Your task to perform on an android device: show emergency info Image 0: 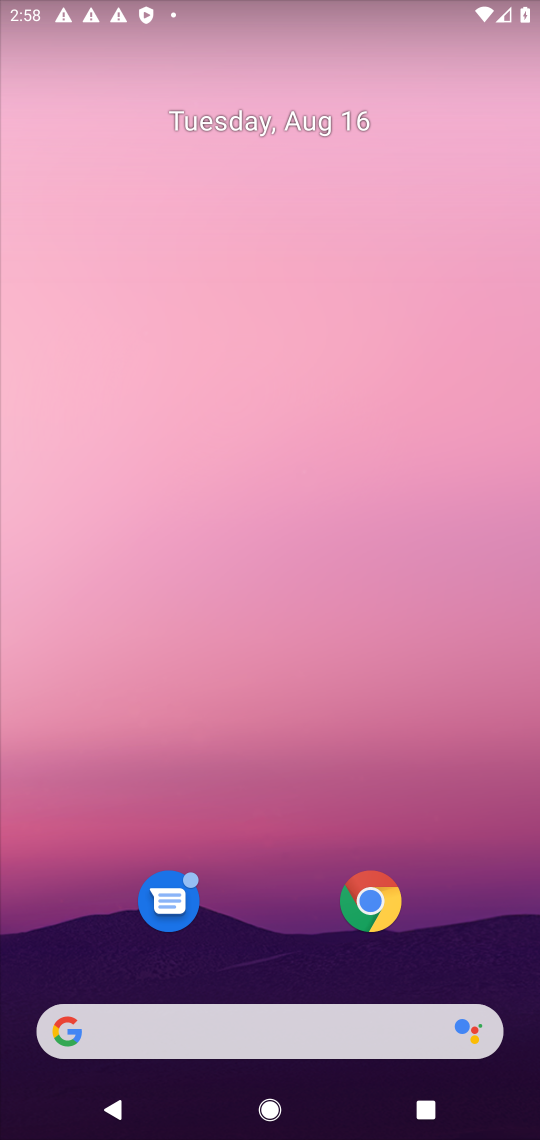
Step 0: drag from (239, 760) to (239, 44)
Your task to perform on an android device: show emergency info Image 1: 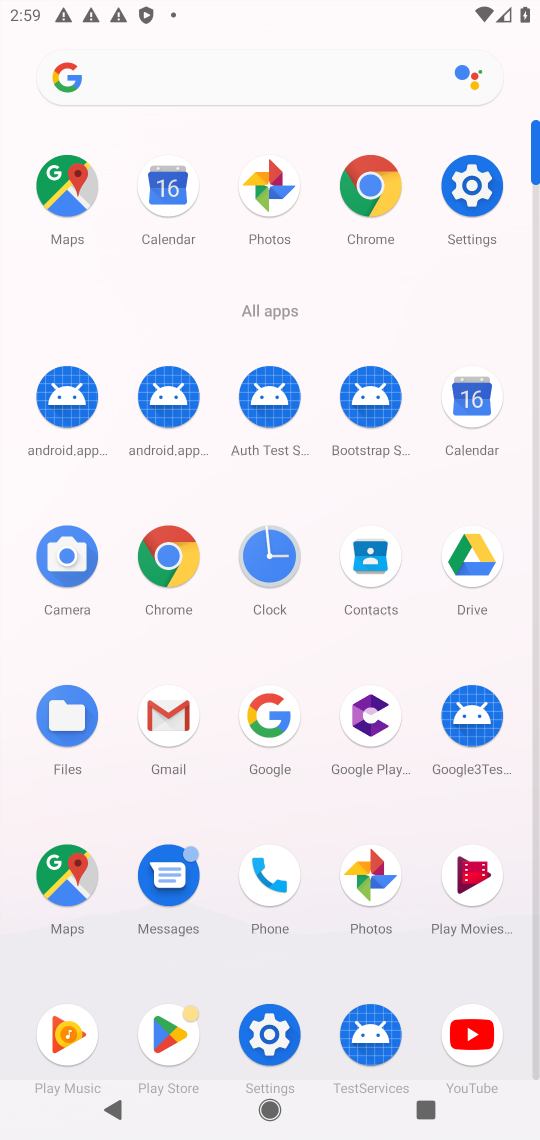
Step 1: click (480, 200)
Your task to perform on an android device: show emergency info Image 2: 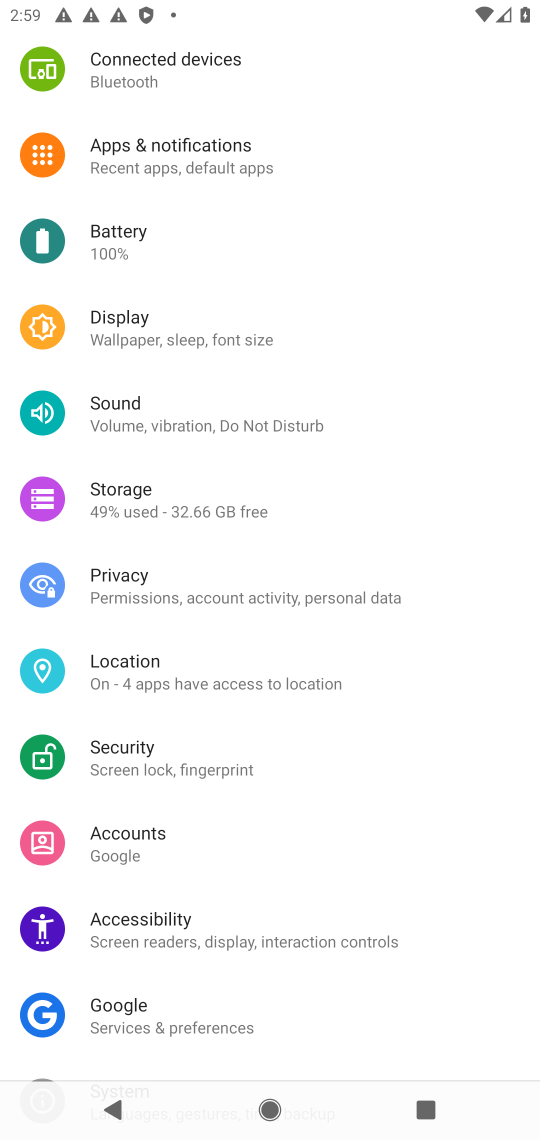
Step 2: drag from (224, 921) to (241, 347)
Your task to perform on an android device: show emergency info Image 3: 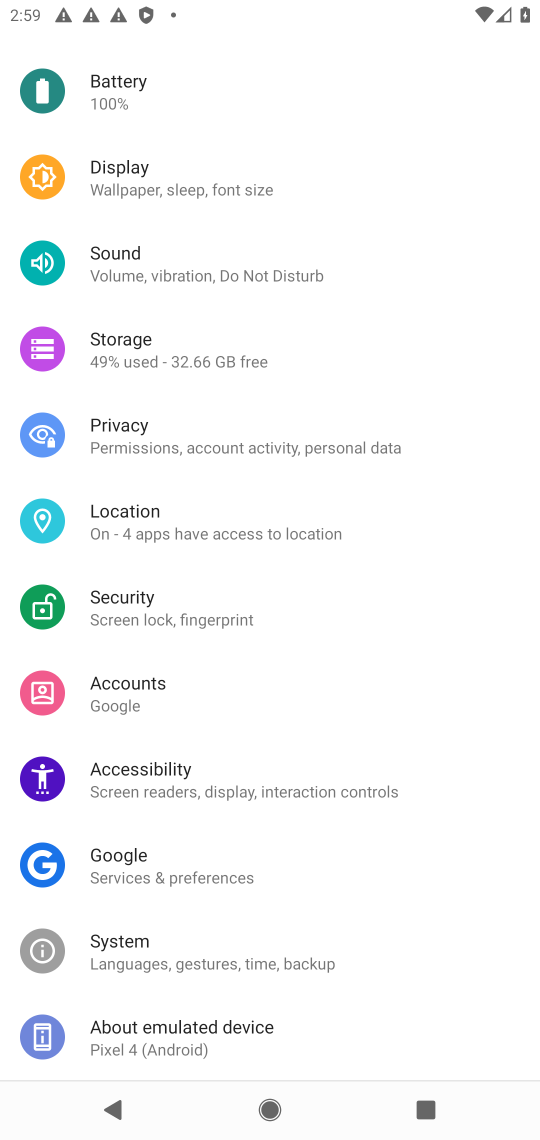
Step 3: drag from (173, 576) to (207, 426)
Your task to perform on an android device: show emergency info Image 4: 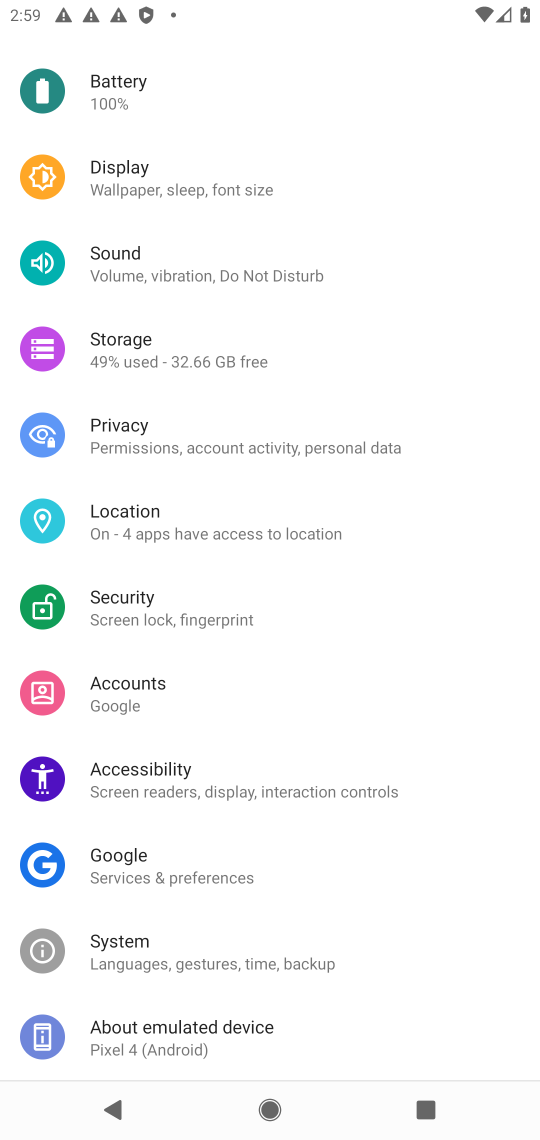
Step 4: drag from (207, 967) to (218, 542)
Your task to perform on an android device: show emergency info Image 5: 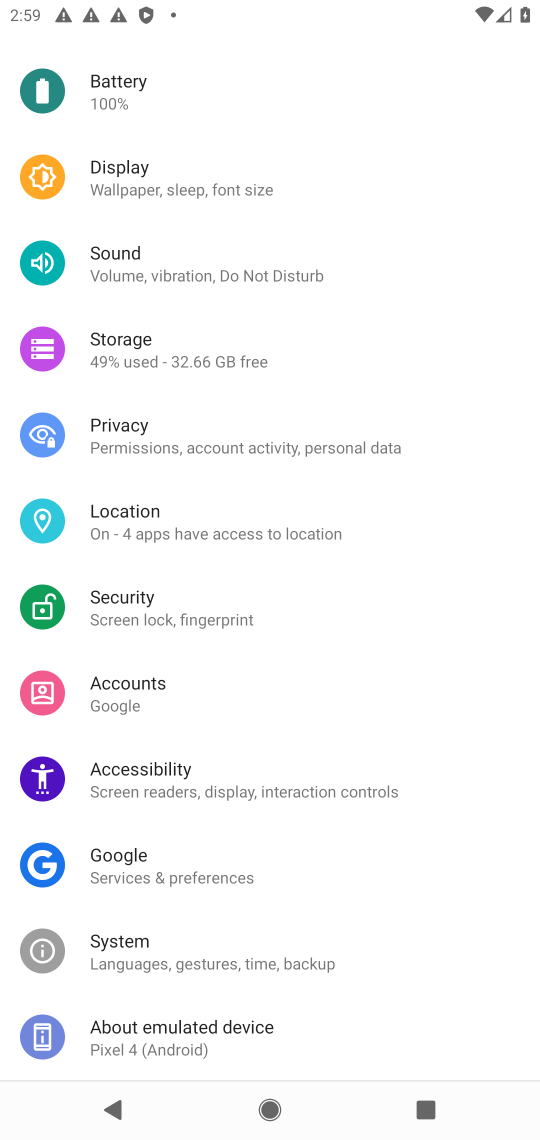
Step 5: click (172, 1027)
Your task to perform on an android device: show emergency info Image 6: 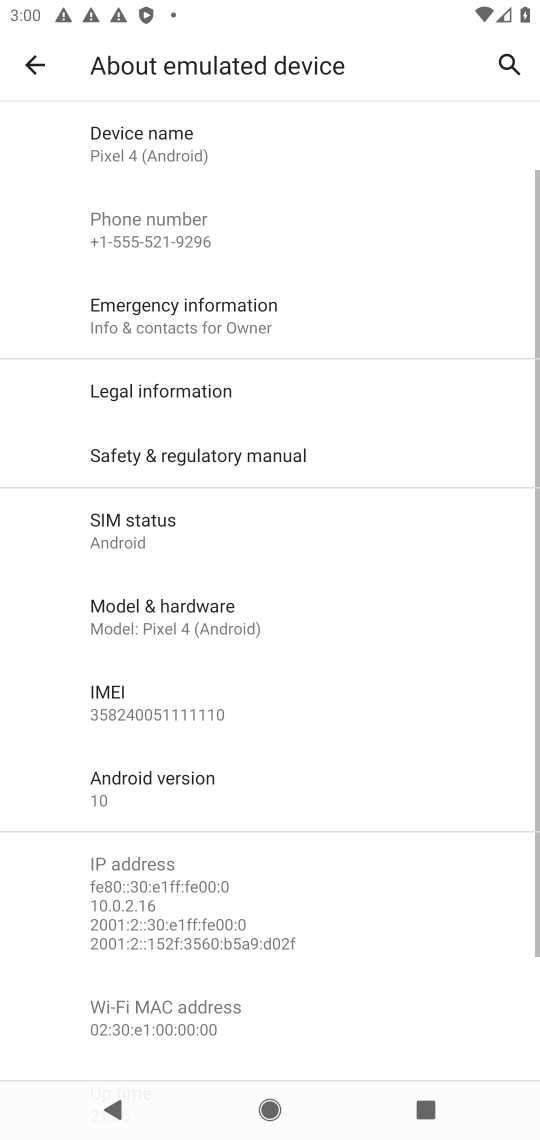
Step 6: click (161, 322)
Your task to perform on an android device: show emergency info Image 7: 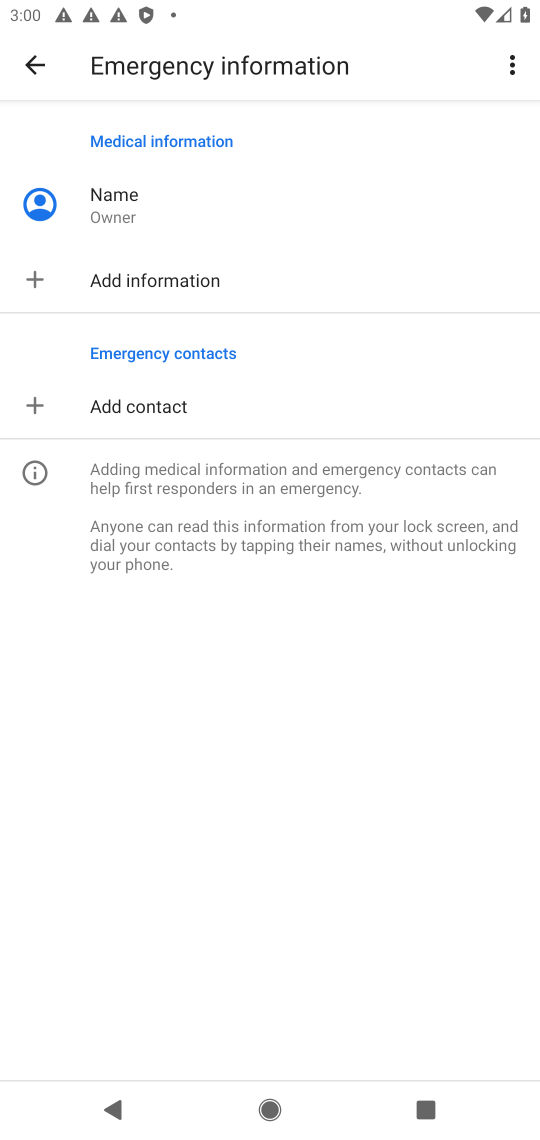
Step 7: task complete